Your task to perform on an android device: change alarm snooze length Image 0: 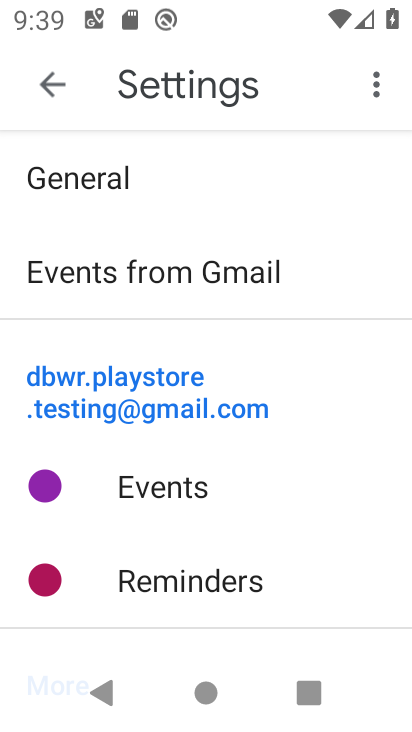
Step 0: click (207, 693)
Your task to perform on an android device: change alarm snooze length Image 1: 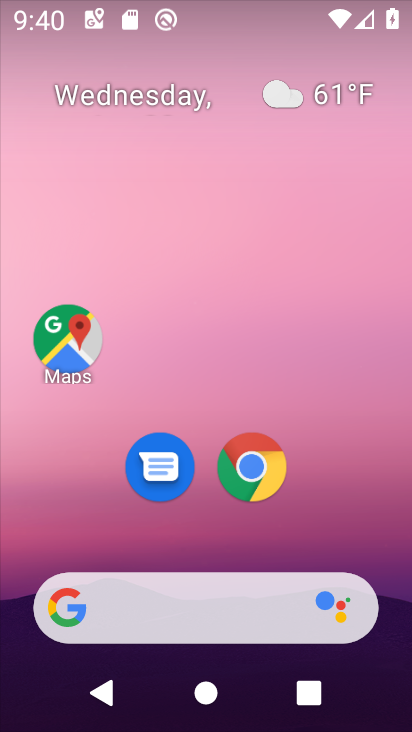
Step 1: drag from (336, 421) to (304, 43)
Your task to perform on an android device: change alarm snooze length Image 2: 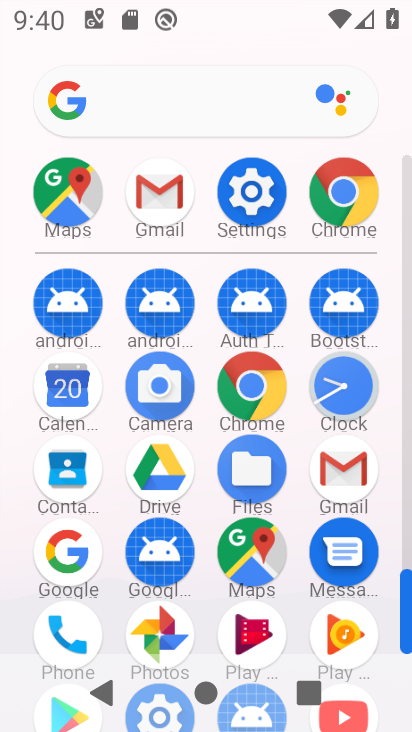
Step 2: click (349, 384)
Your task to perform on an android device: change alarm snooze length Image 3: 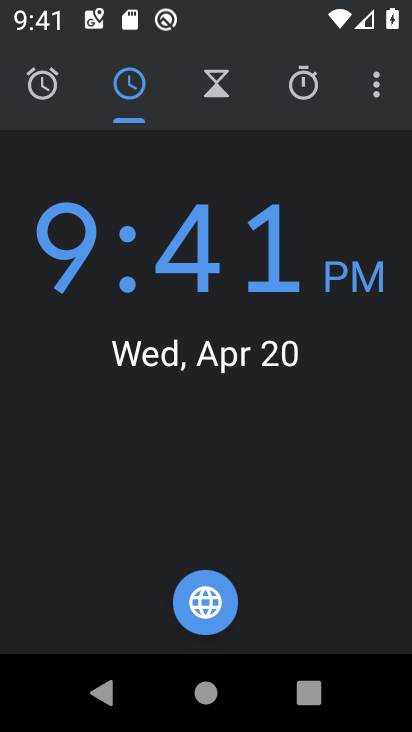
Step 3: click (380, 90)
Your task to perform on an android device: change alarm snooze length Image 4: 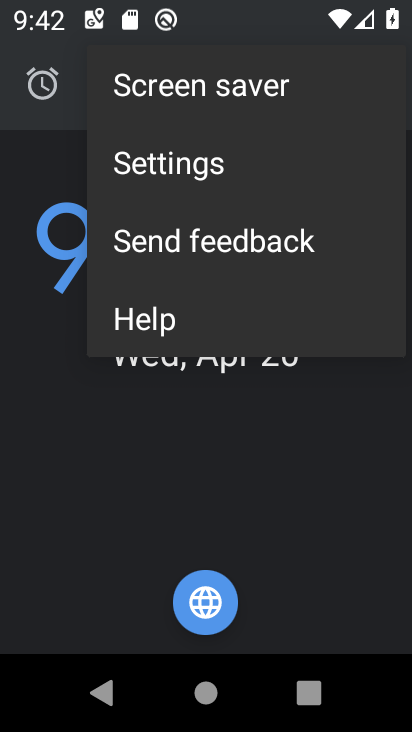
Step 4: click (171, 176)
Your task to perform on an android device: change alarm snooze length Image 5: 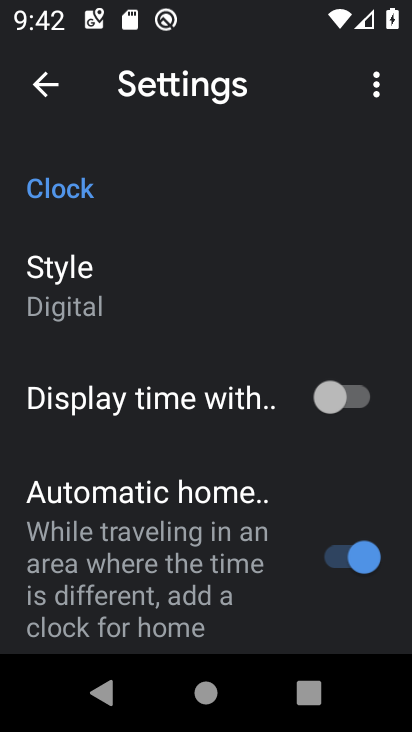
Step 5: drag from (118, 525) to (171, 302)
Your task to perform on an android device: change alarm snooze length Image 6: 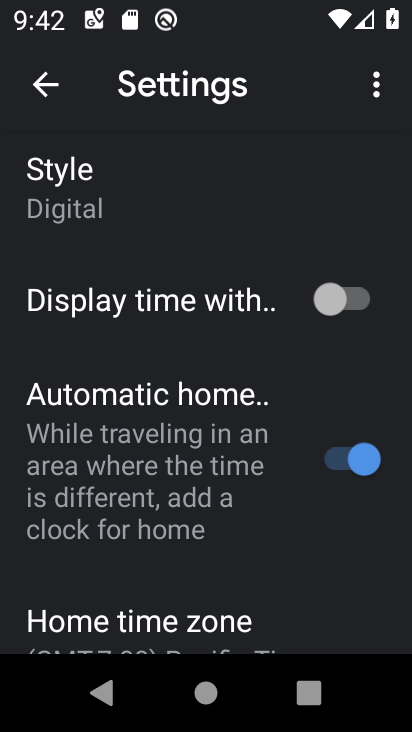
Step 6: drag from (208, 484) to (262, 127)
Your task to perform on an android device: change alarm snooze length Image 7: 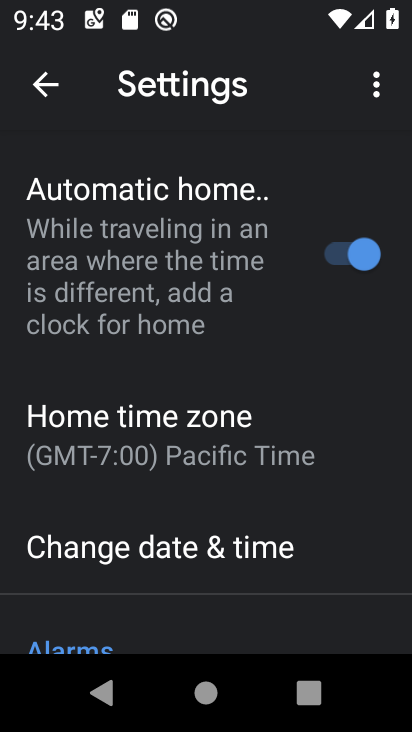
Step 7: drag from (149, 562) to (194, 299)
Your task to perform on an android device: change alarm snooze length Image 8: 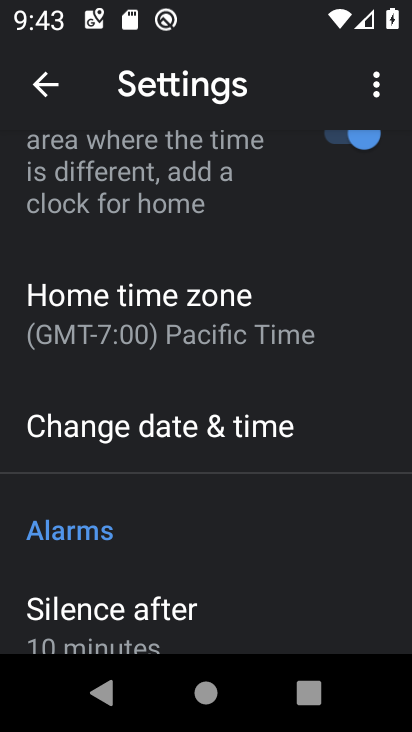
Step 8: drag from (204, 459) to (217, 201)
Your task to perform on an android device: change alarm snooze length Image 9: 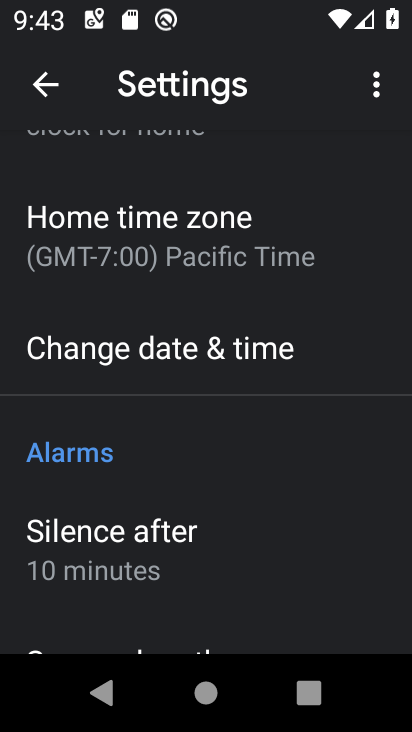
Step 9: drag from (204, 558) to (252, 183)
Your task to perform on an android device: change alarm snooze length Image 10: 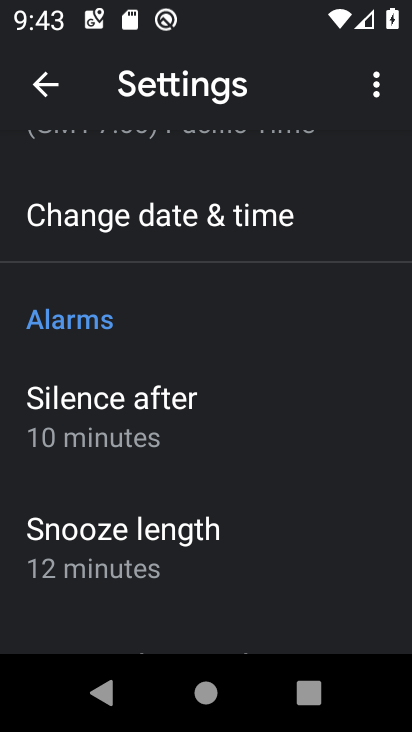
Step 10: drag from (173, 595) to (219, 302)
Your task to perform on an android device: change alarm snooze length Image 11: 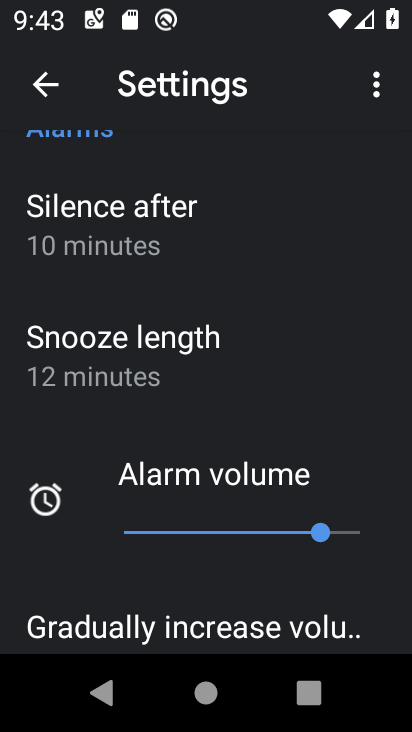
Step 11: click (137, 318)
Your task to perform on an android device: change alarm snooze length Image 12: 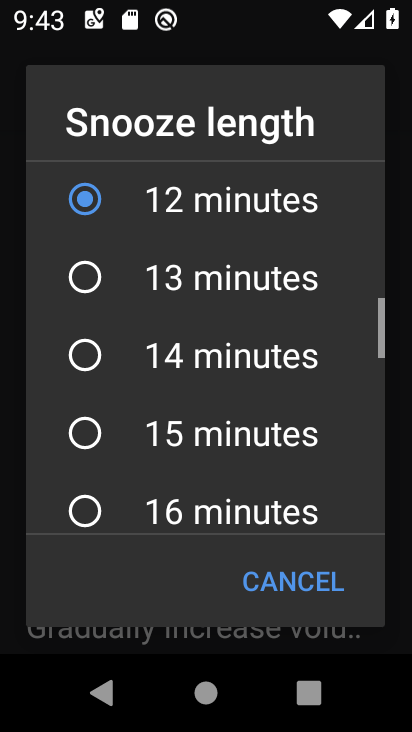
Step 12: click (95, 366)
Your task to perform on an android device: change alarm snooze length Image 13: 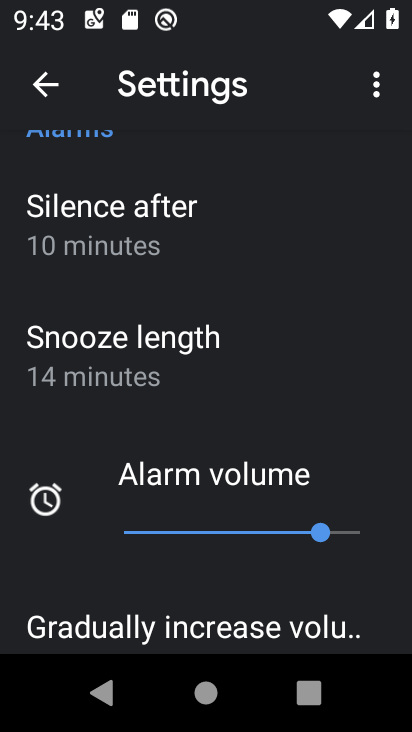
Step 13: task complete